Your task to perform on an android device: Go to sound settings Image 0: 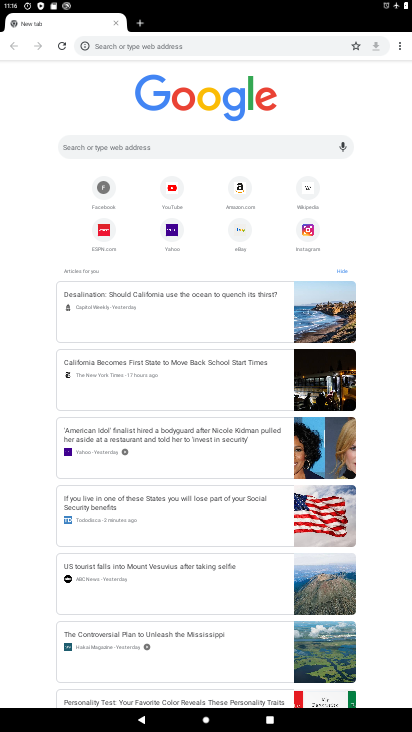
Step 0: press home button
Your task to perform on an android device: Go to sound settings Image 1: 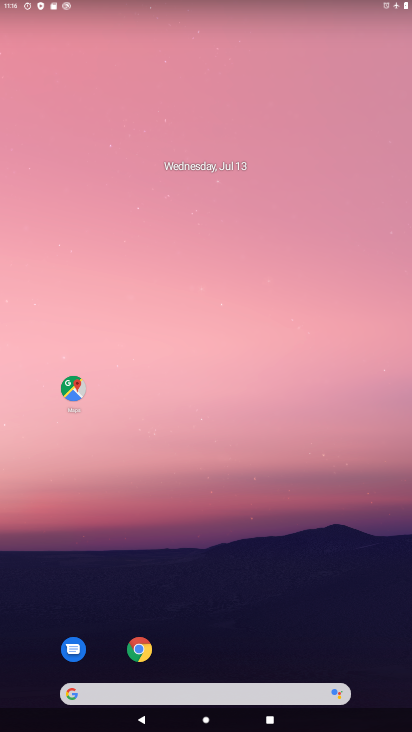
Step 1: drag from (213, 689) to (231, 347)
Your task to perform on an android device: Go to sound settings Image 2: 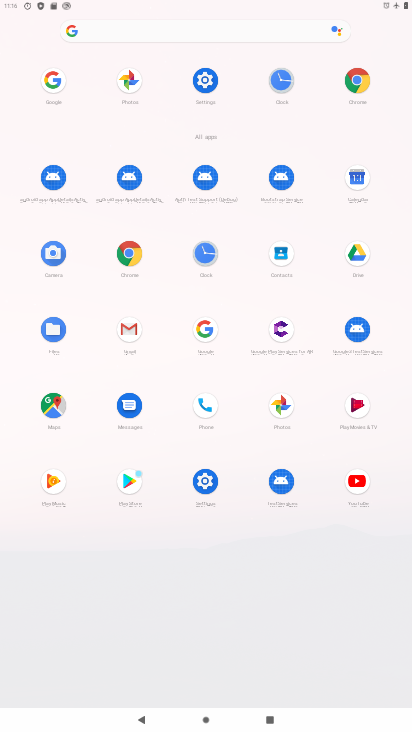
Step 2: click (206, 81)
Your task to perform on an android device: Go to sound settings Image 3: 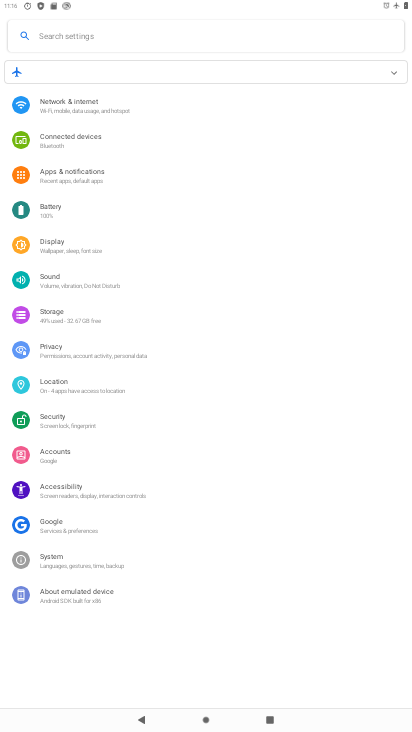
Step 3: click (61, 288)
Your task to perform on an android device: Go to sound settings Image 4: 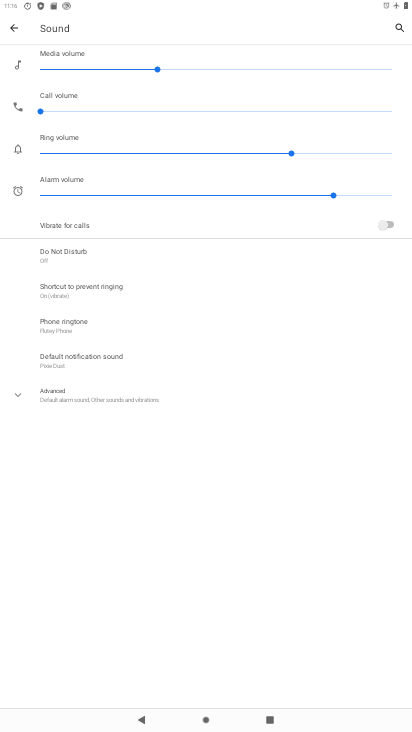
Step 4: task complete